Your task to perform on an android device: turn off improve location accuracy Image 0: 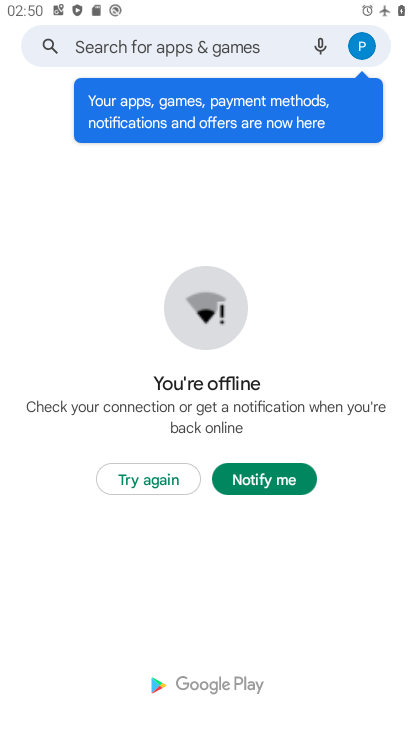
Step 0: press home button
Your task to perform on an android device: turn off improve location accuracy Image 1: 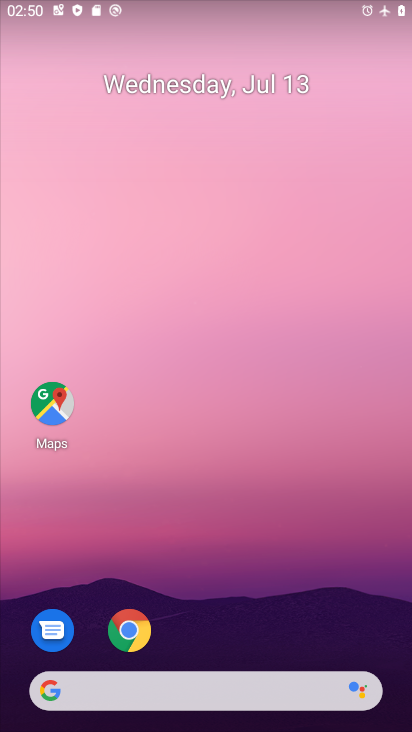
Step 1: drag from (195, 653) to (214, 196)
Your task to perform on an android device: turn off improve location accuracy Image 2: 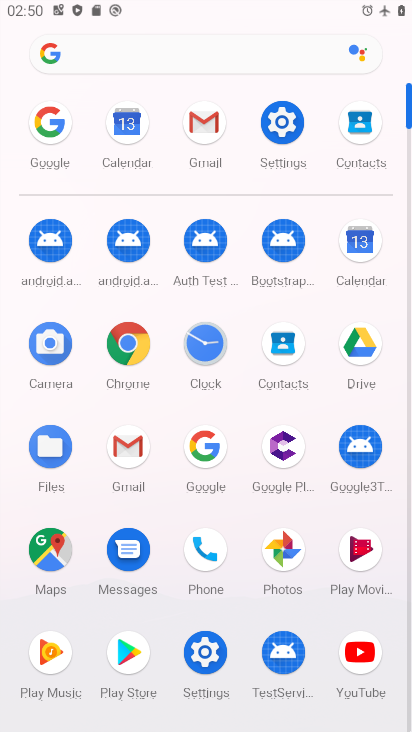
Step 2: click (288, 138)
Your task to perform on an android device: turn off improve location accuracy Image 3: 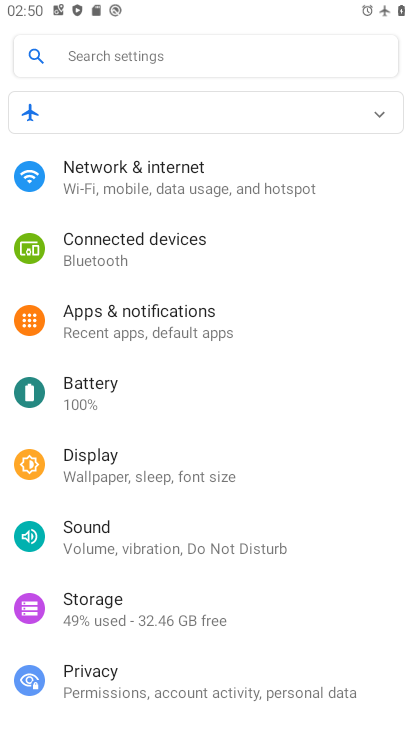
Step 3: drag from (156, 632) to (160, 355)
Your task to perform on an android device: turn off improve location accuracy Image 4: 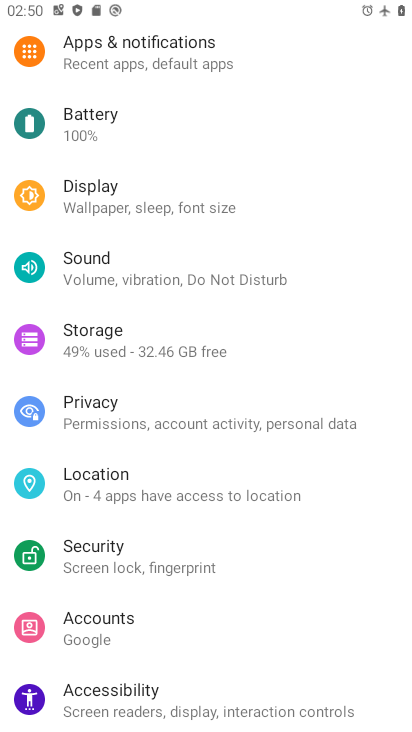
Step 4: click (137, 500)
Your task to perform on an android device: turn off improve location accuracy Image 5: 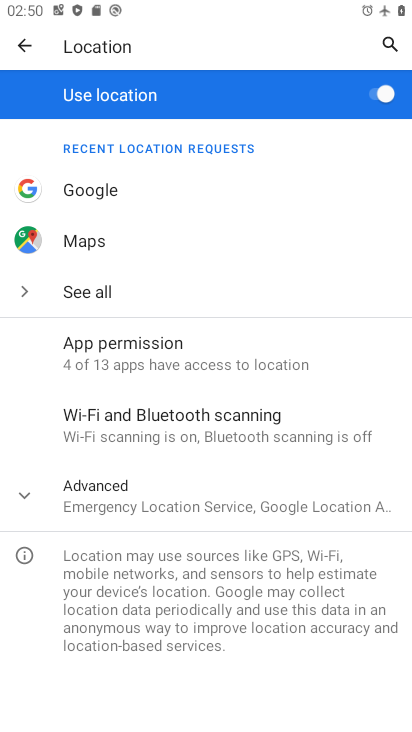
Step 5: click (155, 502)
Your task to perform on an android device: turn off improve location accuracy Image 6: 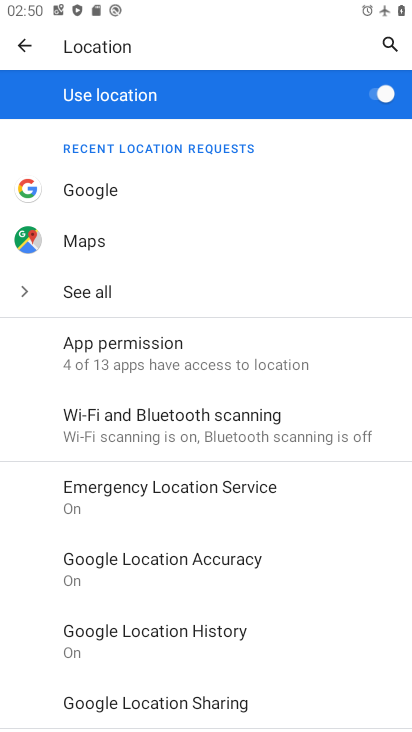
Step 6: click (200, 566)
Your task to perform on an android device: turn off improve location accuracy Image 7: 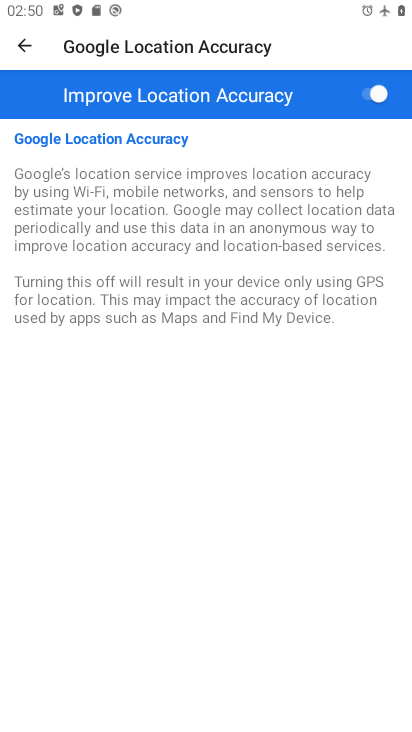
Step 7: click (360, 95)
Your task to perform on an android device: turn off improve location accuracy Image 8: 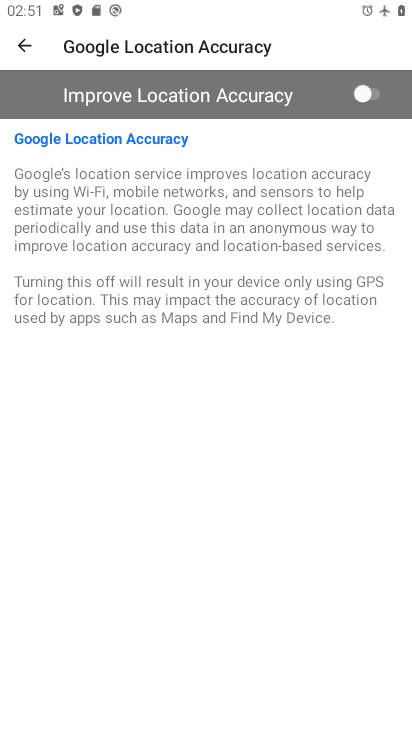
Step 8: task complete